Your task to perform on an android device: Find coffee shops on Maps Image 0: 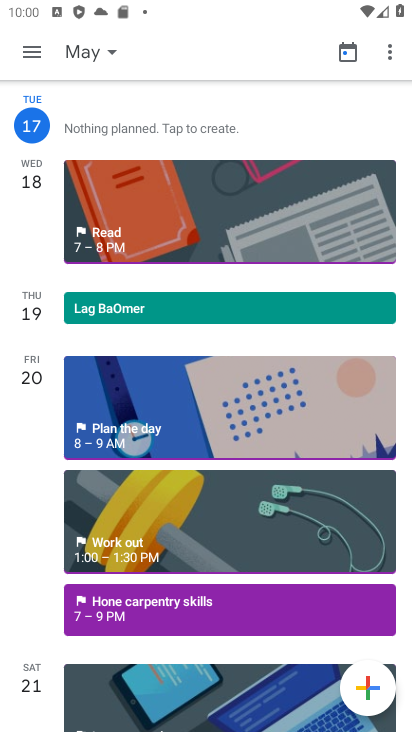
Step 0: press home button
Your task to perform on an android device: Find coffee shops on Maps Image 1: 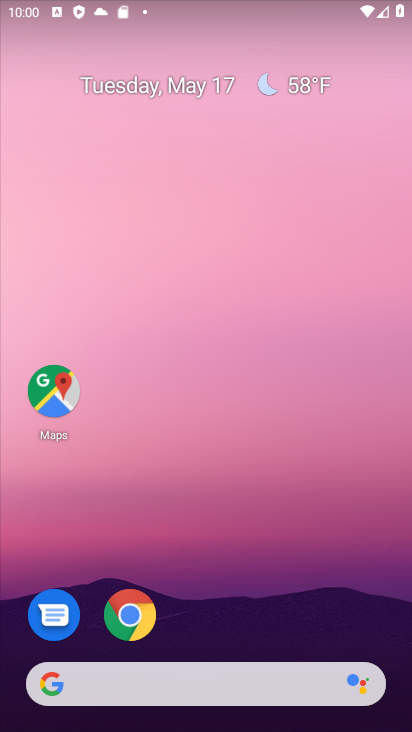
Step 1: click (51, 391)
Your task to perform on an android device: Find coffee shops on Maps Image 2: 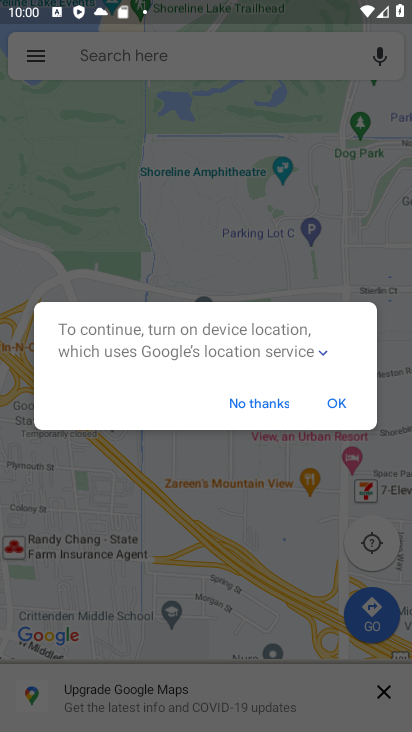
Step 2: click (341, 410)
Your task to perform on an android device: Find coffee shops on Maps Image 3: 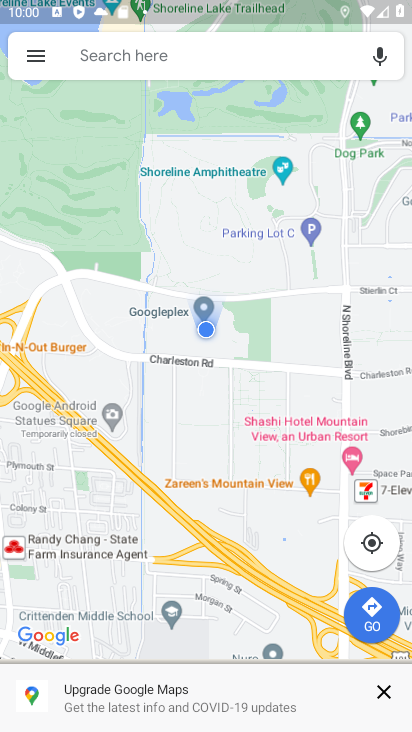
Step 3: click (123, 52)
Your task to perform on an android device: Find coffee shops on Maps Image 4: 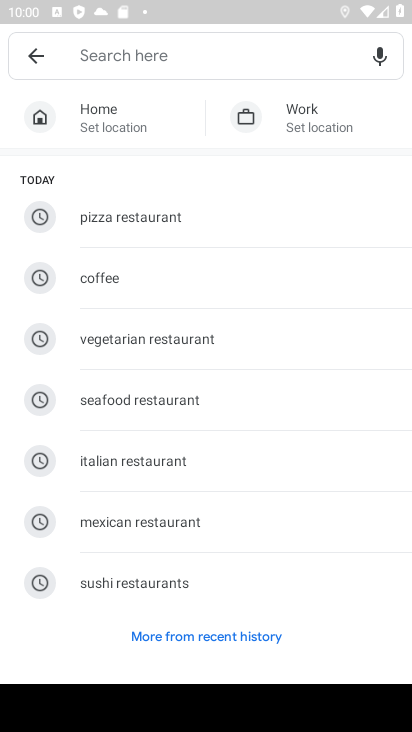
Step 4: type "coffee shop"
Your task to perform on an android device: Find coffee shops on Maps Image 5: 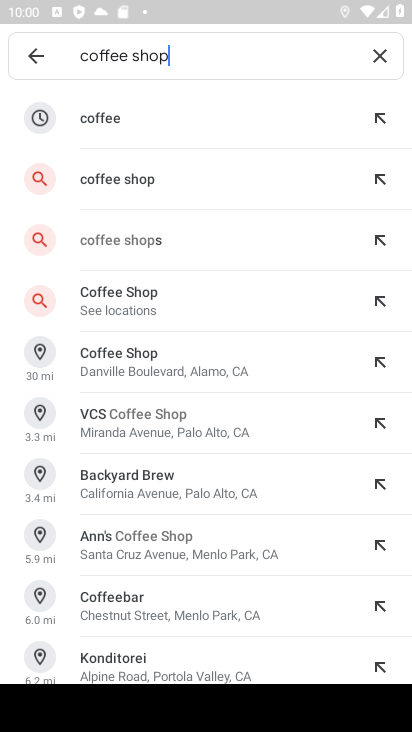
Step 5: click (121, 175)
Your task to perform on an android device: Find coffee shops on Maps Image 6: 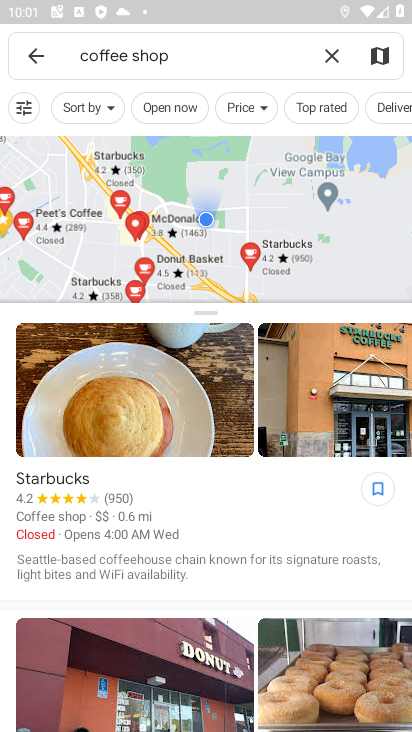
Step 6: task complete